Your task to perform on an android device: Go to Android settings Image 0: 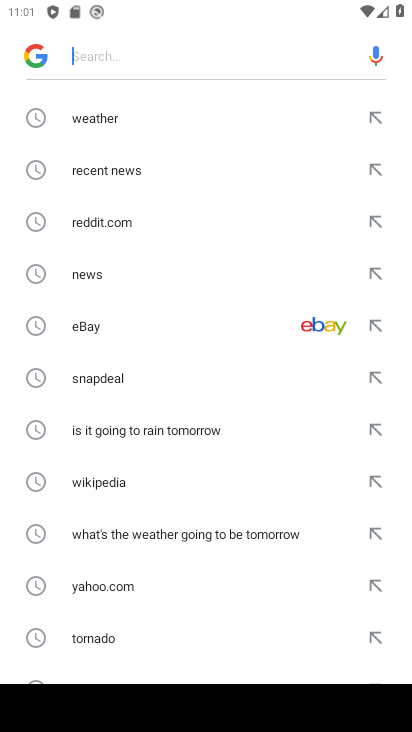
Step 0: press home button
Your task to perform on an android device: Go to Android settings Image 1: 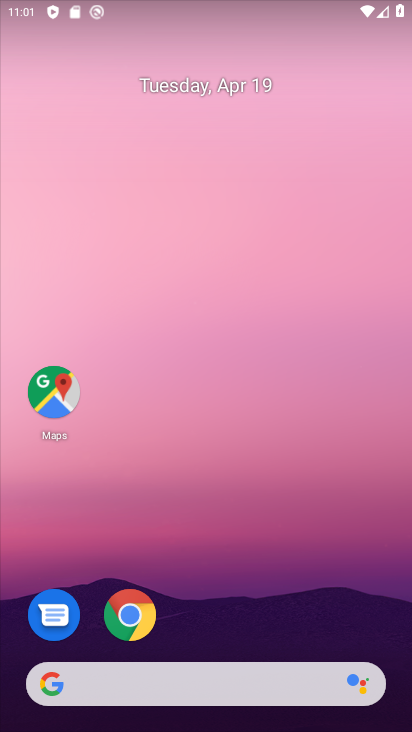
Step 1: drag from (240, 612) to (267, 112)
Your task to perform on an android device: Go to Android settings Image 2: 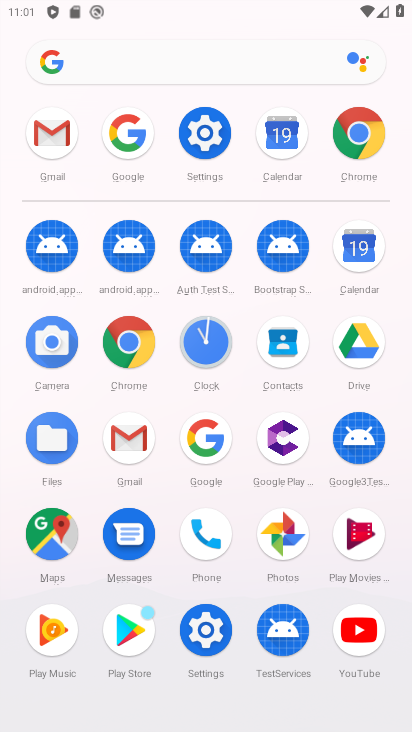
Step 2: click (201, 128)
Your task to perform on an android device: Go to Android settings Image 3: 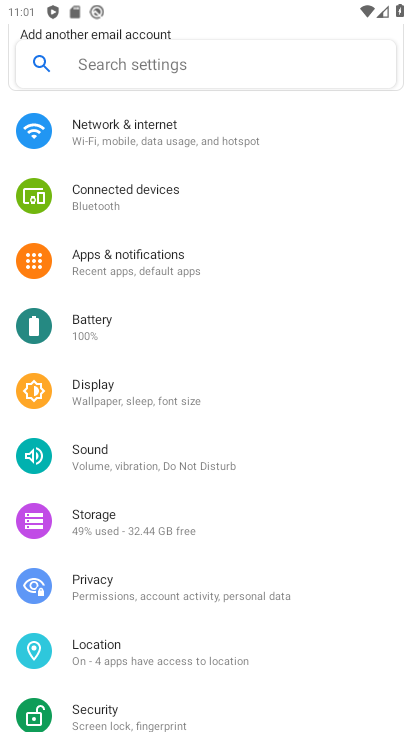
Step 3: drag from (204, 631) to (191, 52)
Your task to perform on an android device: Go to Android settings Image 4: 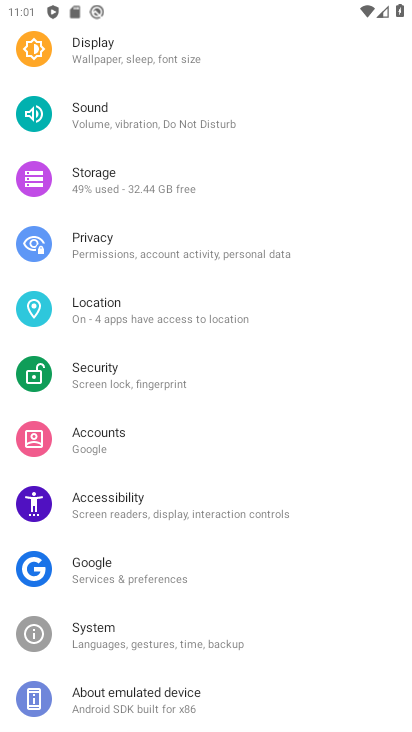
Step 4: click (115, 697)
Your task to perform on an android device: Go to Android settings Image 5: 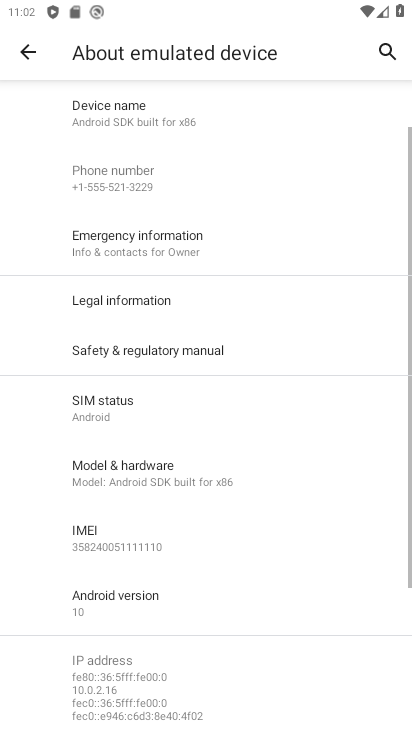
Step 5: task complete